Your task to perform on an android device: open app "Indeed Job Search" (install if not already installed) and go to login screen Image 0: 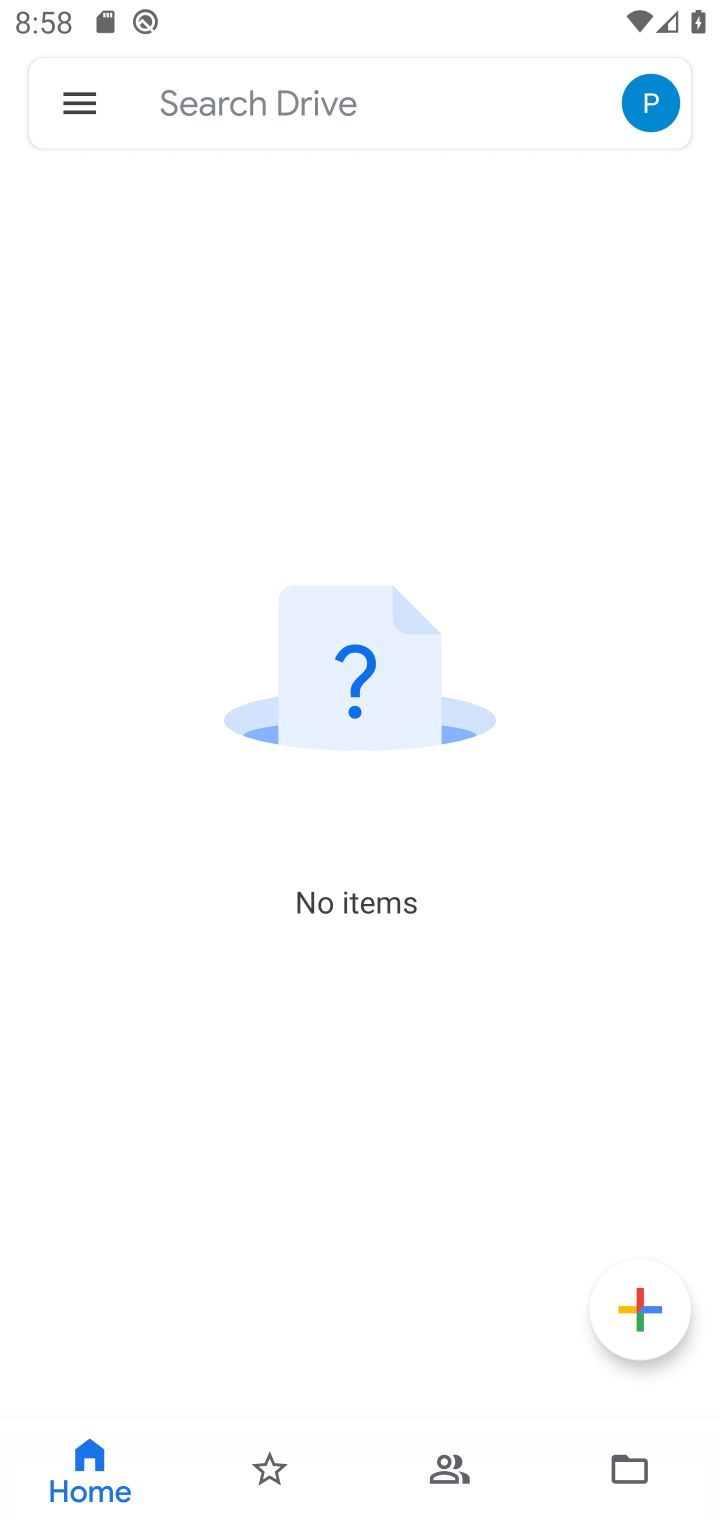
Step 0: press home button
Your task to perform on an android device: open app "Indeed Job Search" (install if not already installed) and go to login screen Image 1: 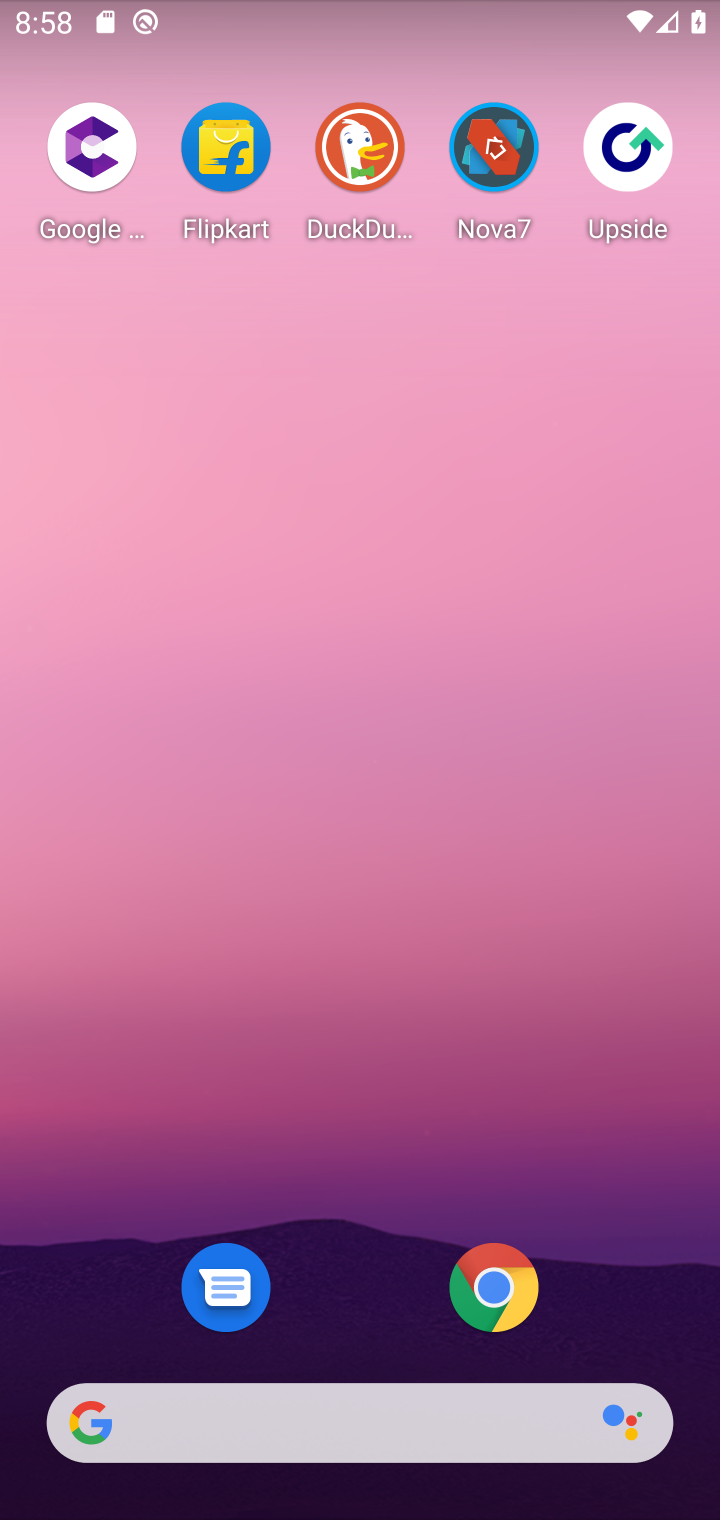
Step 1: drag from (356, 469) to (356, 285)
Your task to perform on an android device: open app "Indeed Job Search" (install if not already installed) and go to login screen Image 2: 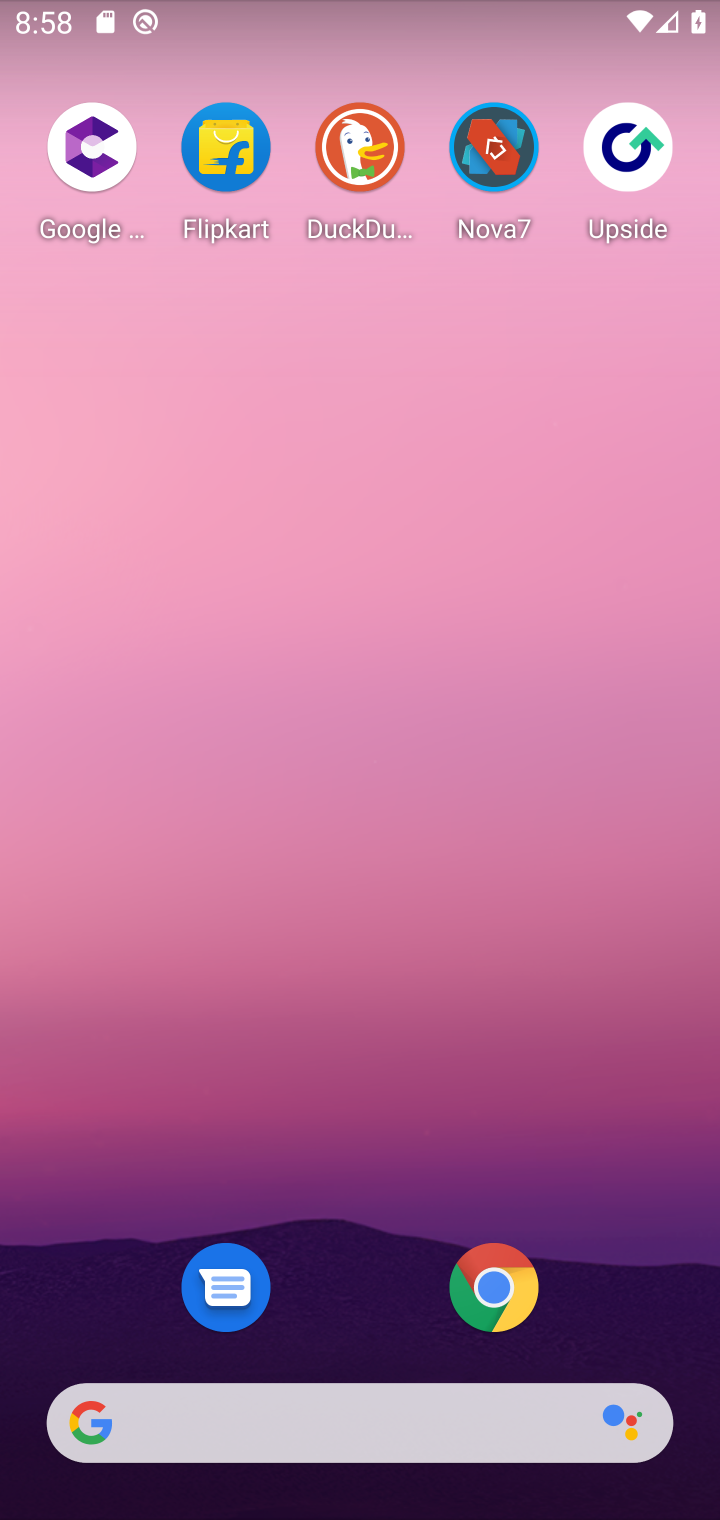
Step 2: drag from (353, 963) to (353, 143)
Your task to perform on an android device: open app "Indeed Job Search" (install if not already installed) and go to login screen Image 3: 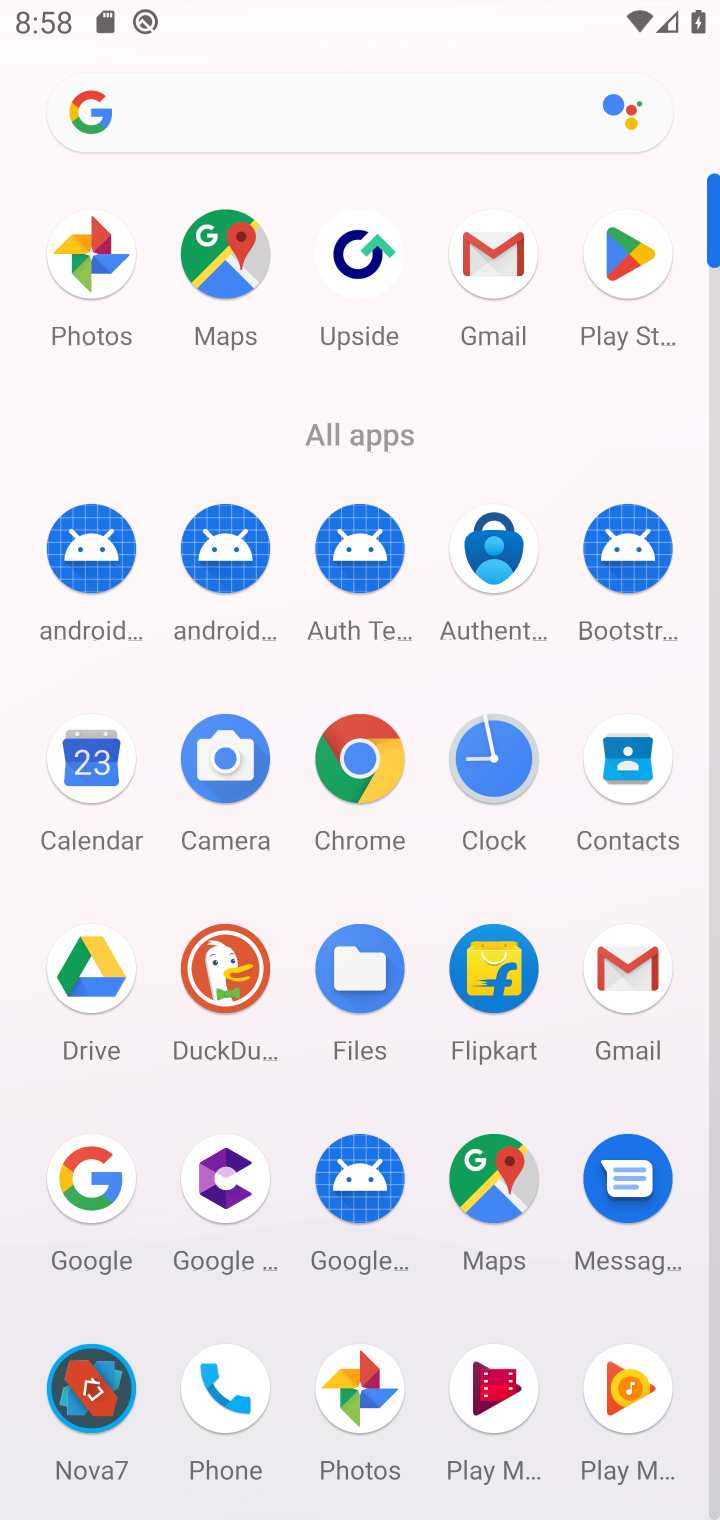
Step 3: click (638, 246)
Your task to perform on an android device: open app "Indeed Job Search" (install if not already installed) and go to login screen Image 4: 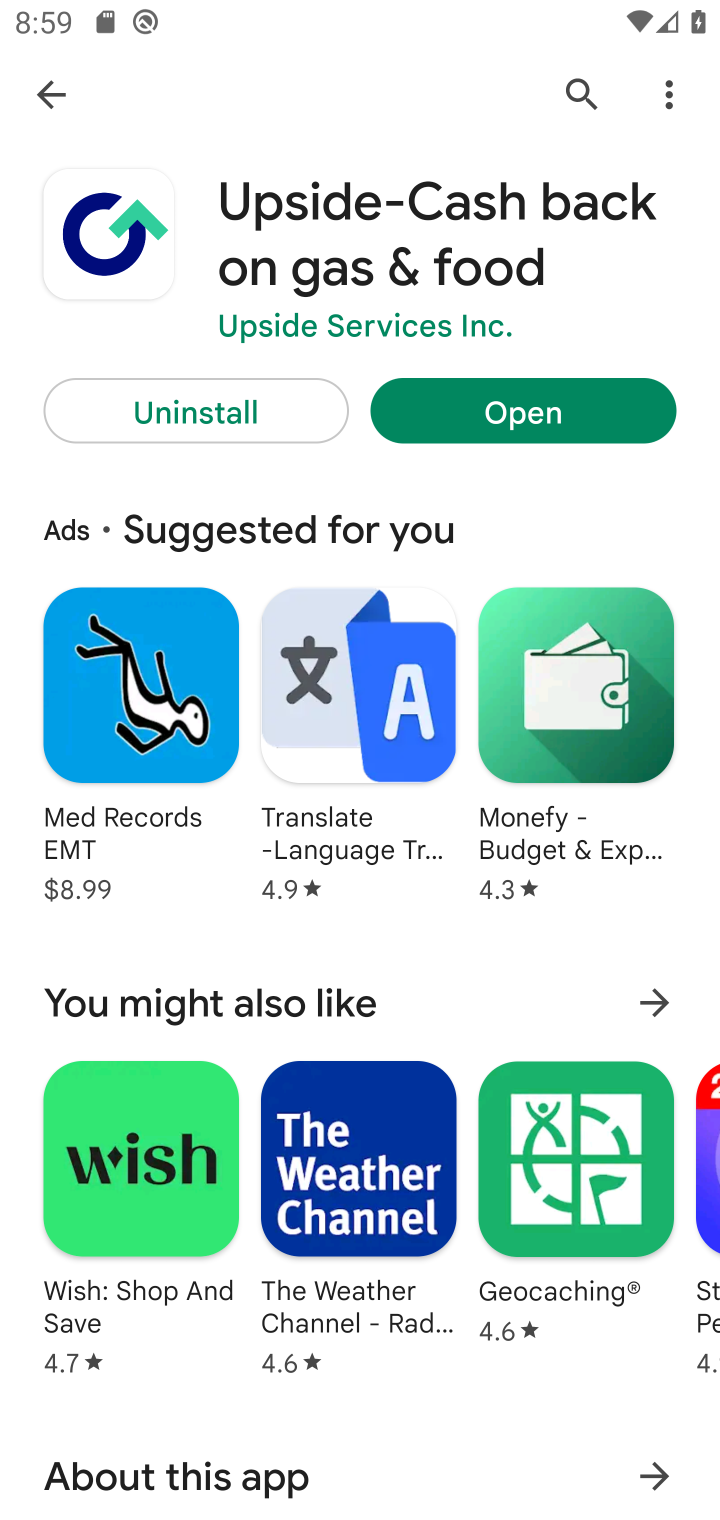
Step 4: click (573, 94)
Your task to perform on an android device: open app "Indeed Job Search" (install if not already installed) and go to login screen Image 5: 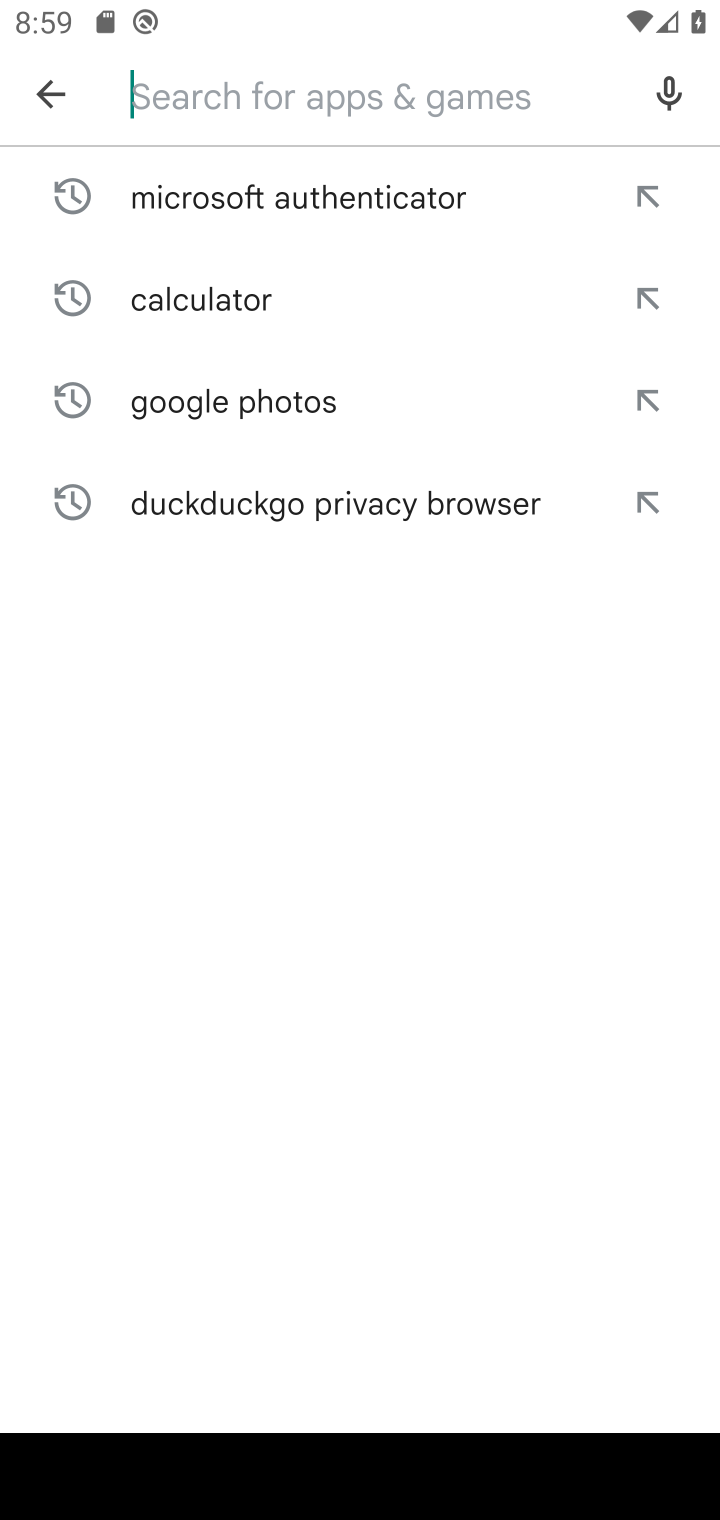
Step 5: type "Indeed Job Search"
Your task to perform on an android device: open app "Indeed Job Search" (install if not already installed) and go to login screen Image 6: 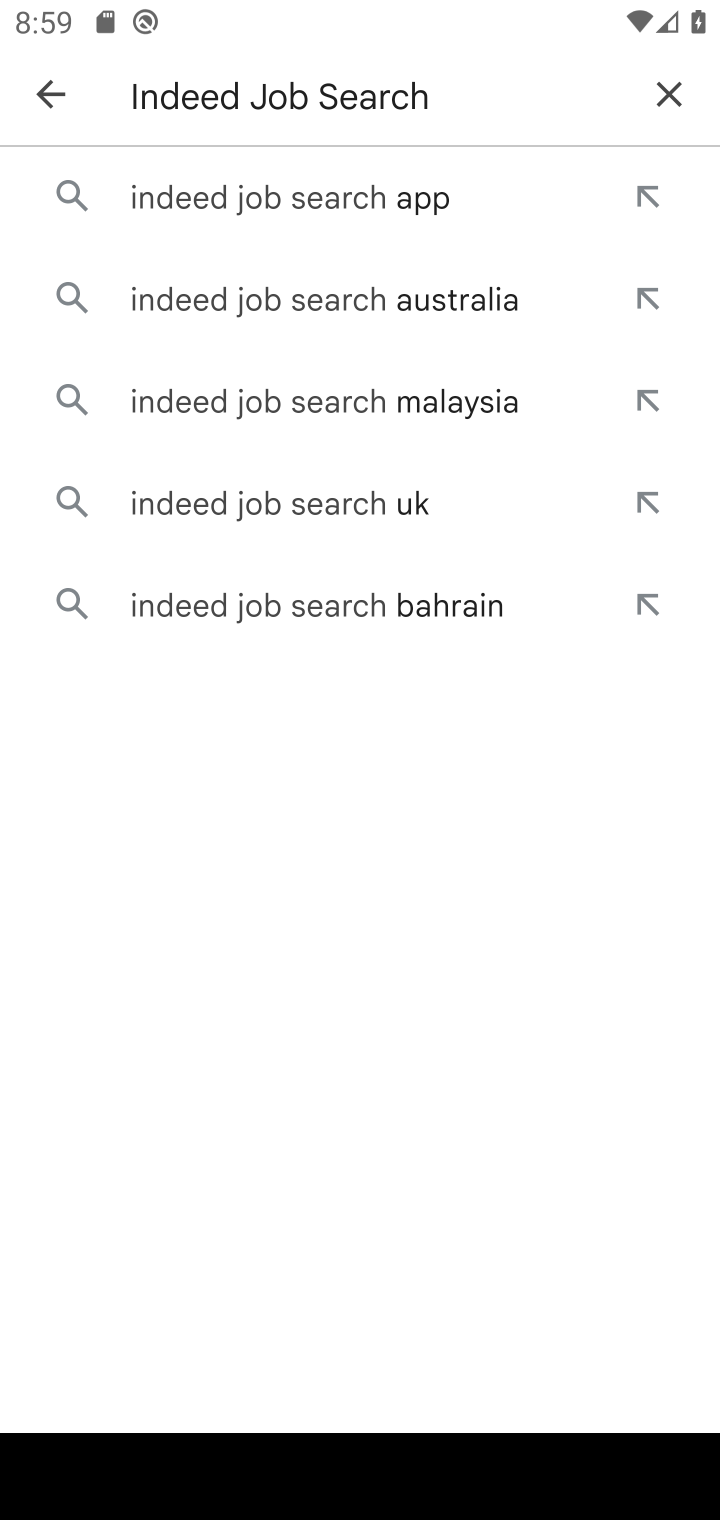
Step 6: click (409, 196)
Your task to perform on an android device: open app "Indeed Job Search" (install if not already installed) and go to login screen Image 7: 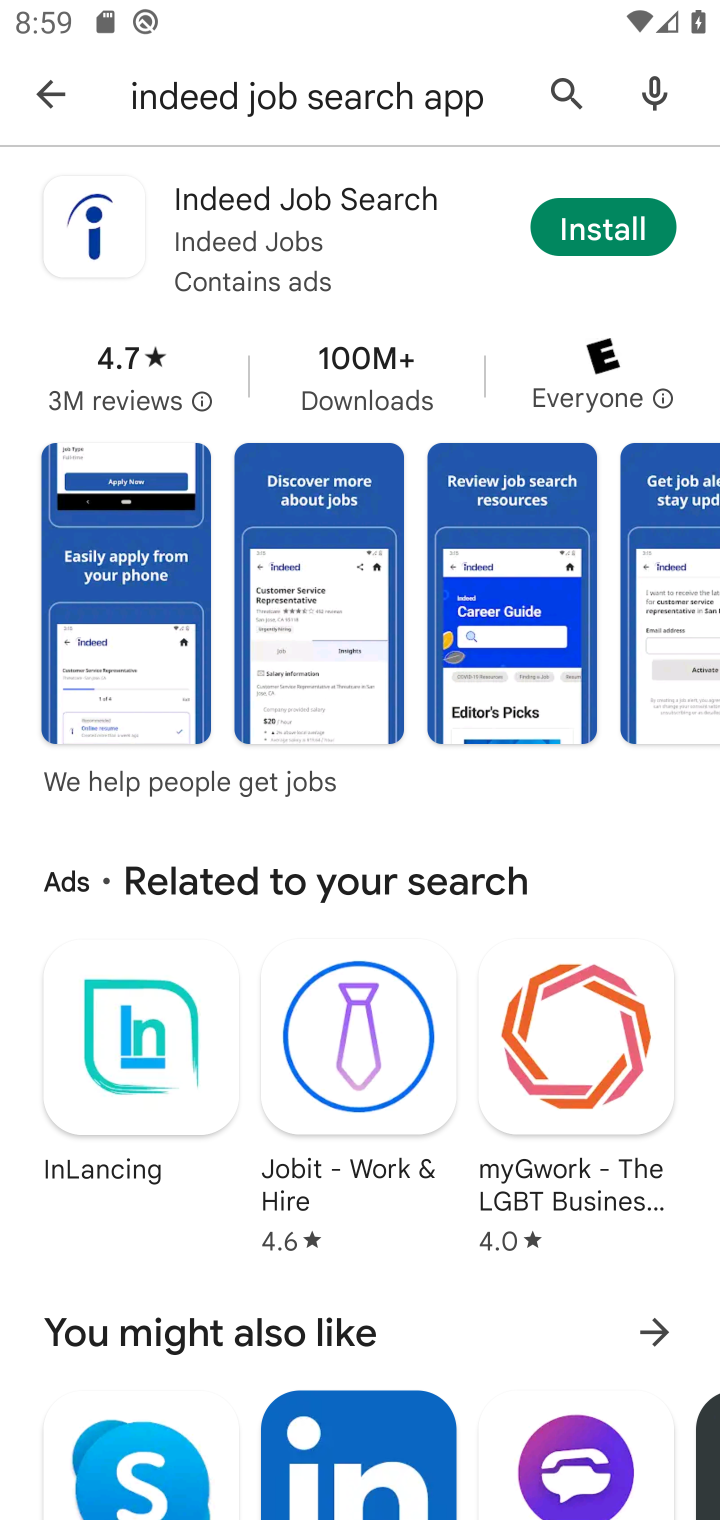
Step 7: click (607, 229)
Your task to perform on an android device: open app "Indeed Job Search" (install if not already installed) and go to login screen Image 8: 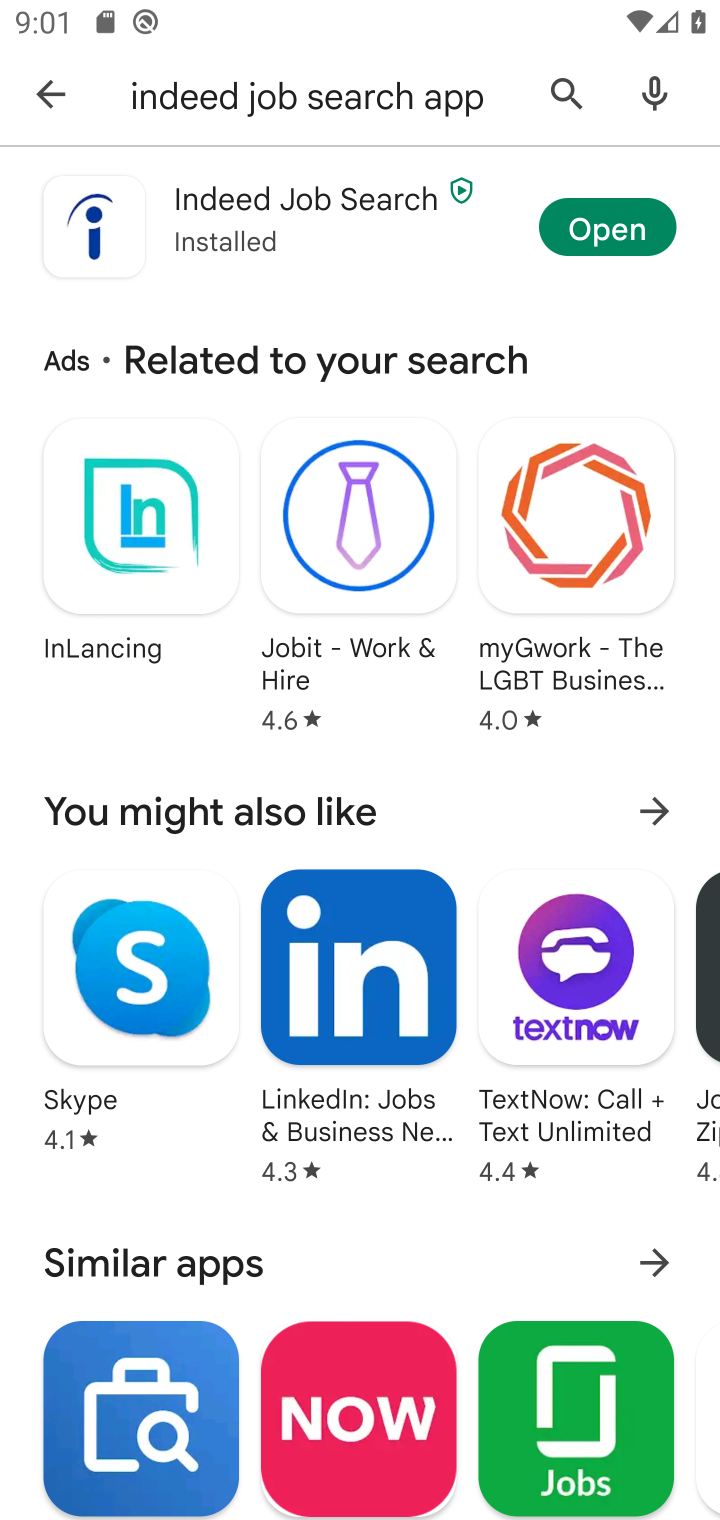
Step 8: click (587, 224)
Your task to perform on an android device: open app "Indeed Job Search" (install if not already installed) and go to login screen Image 9: 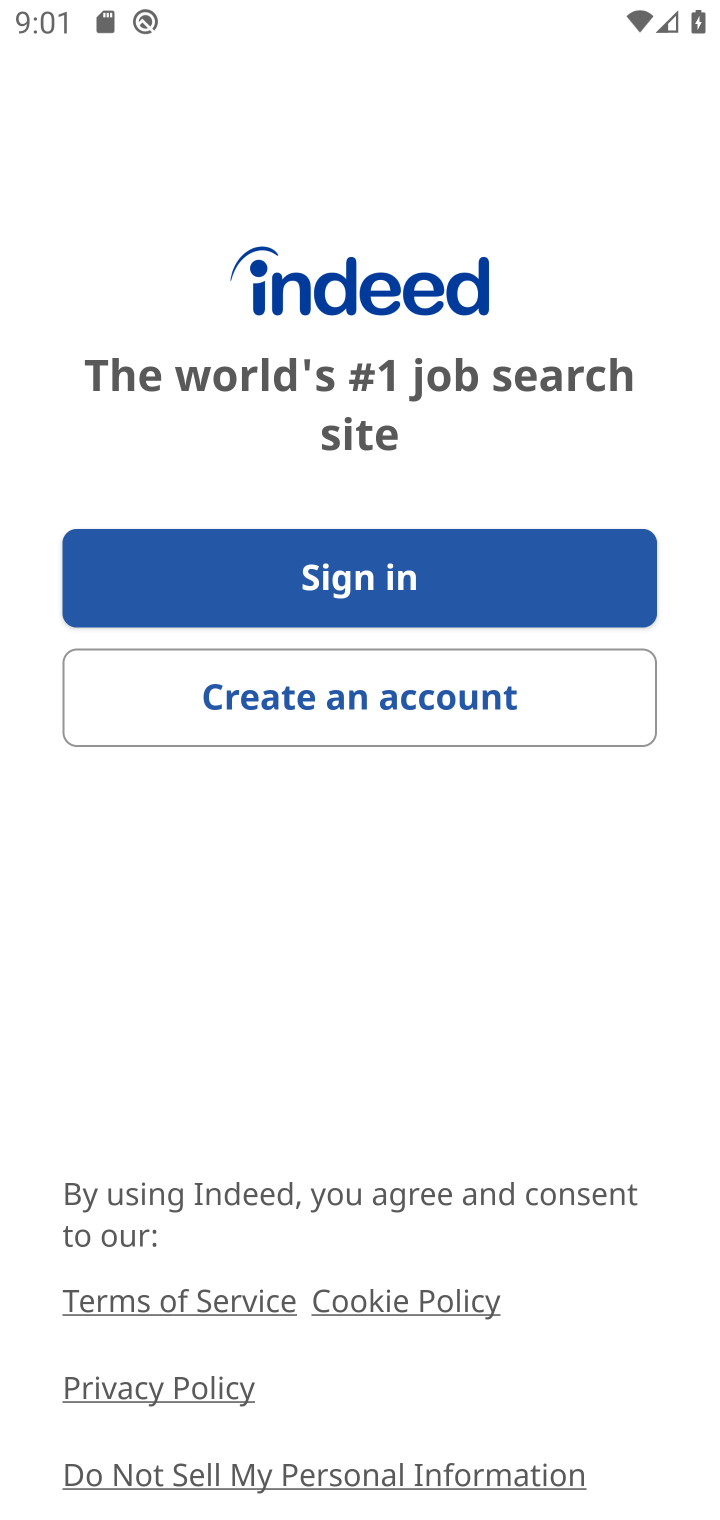
Step 9: task complete